Your task to perform on an android device: change text size in settings app Image 0: 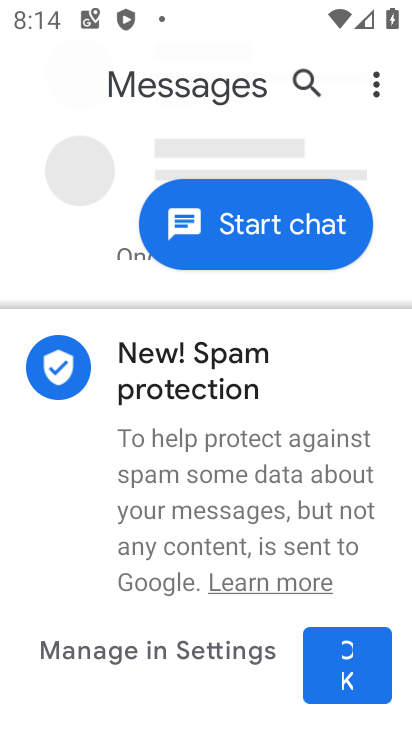
Step 0: press back button
Your task to perform on an android device: change text size in settings app Image 1: 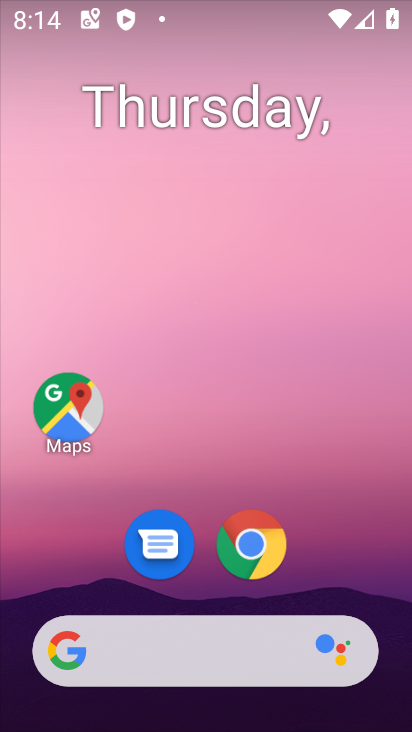
Step 1: drag from (328, 575) to (219, 73)
Your task to perform on an android device: change text size in settings app Image 2: 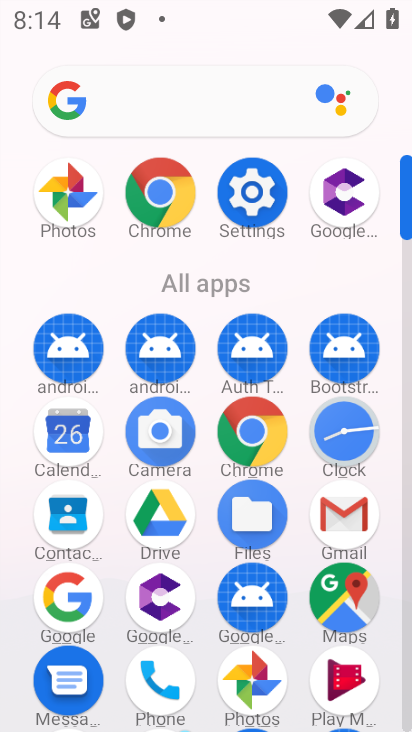
Step 2: click (253, 191)
Your task to perform on an android device: change text size in settings app Image 3: 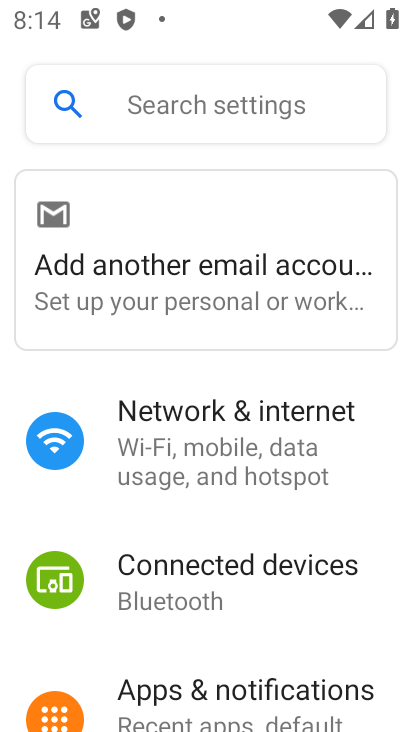
Step 3: drag from (218, 525) to (257, 431)
Your task to perform on an android device: change text size in settings app Image 4: 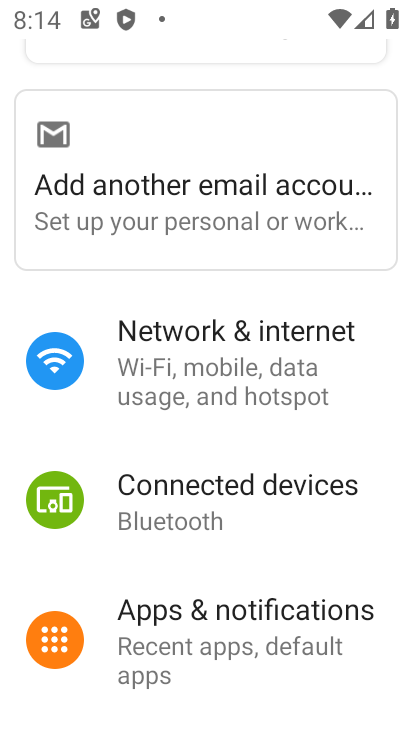
Step 4: drag from (187, 563) to (221, 476)
Your task to perform on an android device: change text size in settings app Image 5: 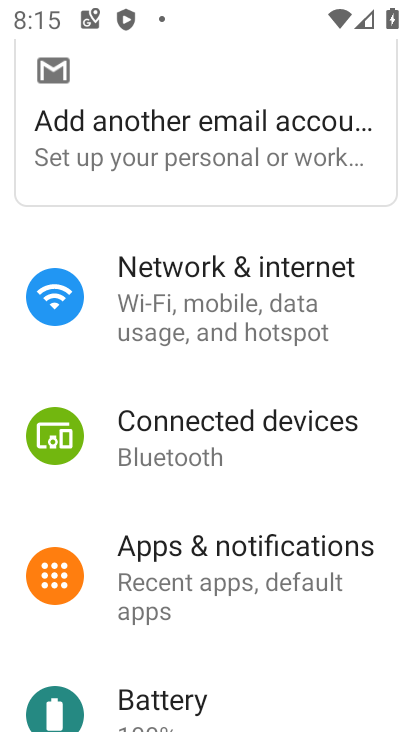
Step 5: drag from (182, 629) to (245, 531)
Your task to perform on an android device: change text size in settings app Image 6: 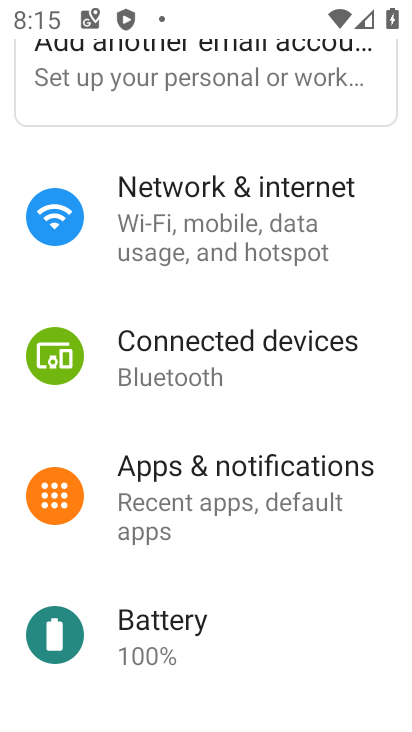
Step 6: drag from (203, 657) to (256, 578)
Your task to perform on an android device: change text size in settings app Image 7: 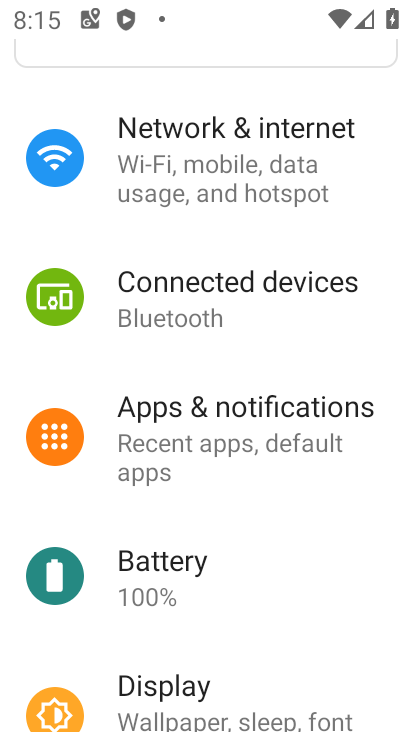
Step 7: drag from (164, 650) to (244, 525)
Your task to perform on an android device: change text size in settings app Image 8: 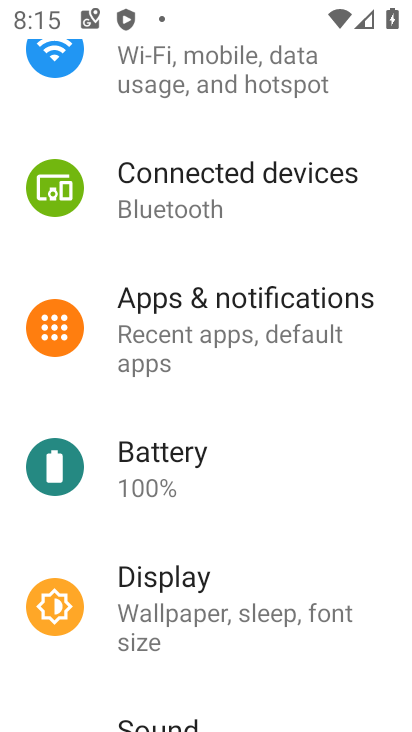
Step 8: drag from (177, 540) to (255, 417)
Your task to perform on an android device: change text size in settings app Image 9: 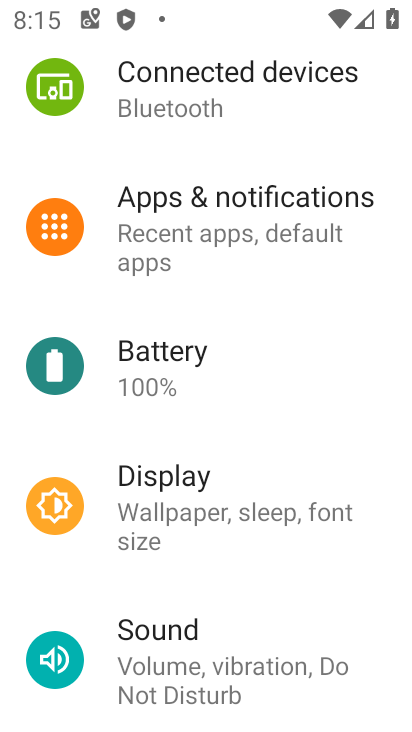
Step 9: drag from (161, 577) to (239, 483)
Your task to perform on an android device: change text size in settings app Image 10: 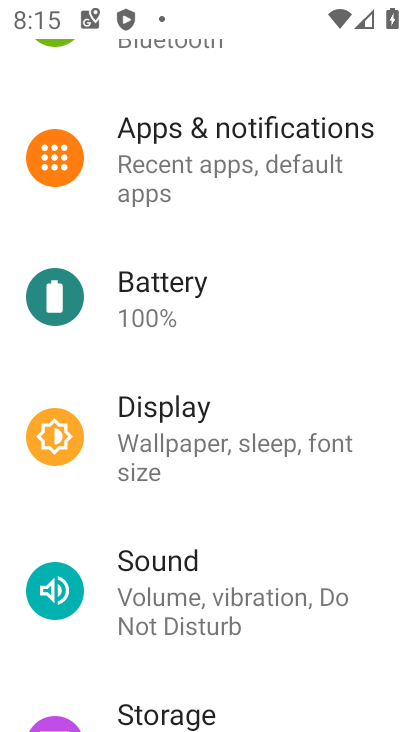
Step 10: drag from (159, 514) to (258, 403)
Your task to perform on an android device: change text size in settings app Image 11: 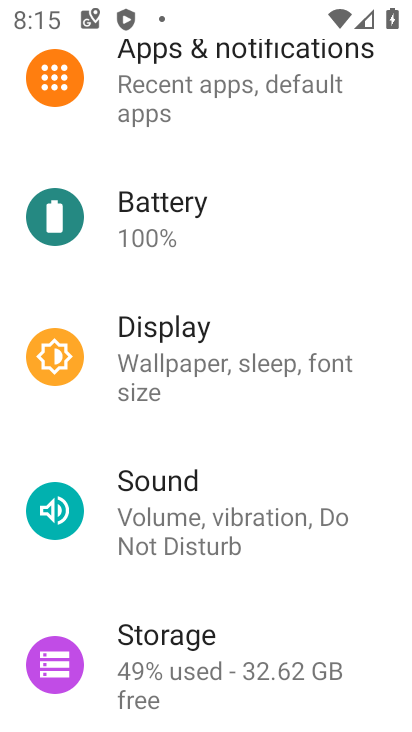
Step 11: drag from (160, 595) to (275, 441)
Your task to perform on an android device: change text size in settings app Image 12: 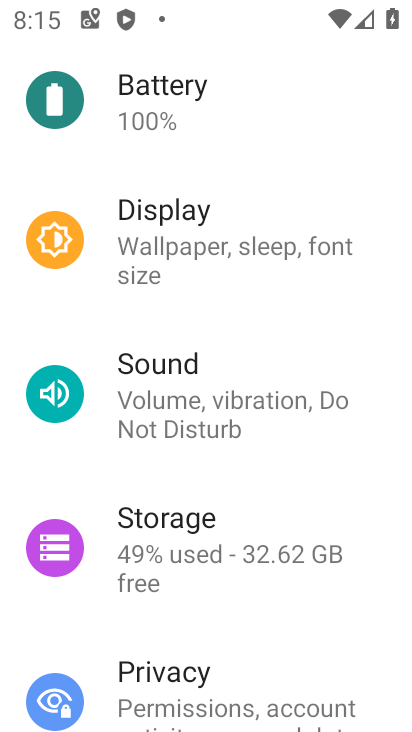
Step 12: drag from (170, 613) to (284, 493)
Your task to perform on an android device: change text size in settings app Image 13: 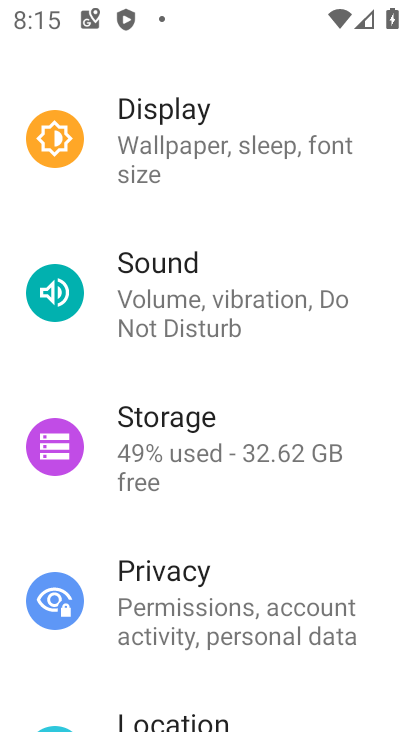
Step 13: drag from (159, 525) to (265, 415)
Your task to perform on an android device: change text size in settings app Image 14: 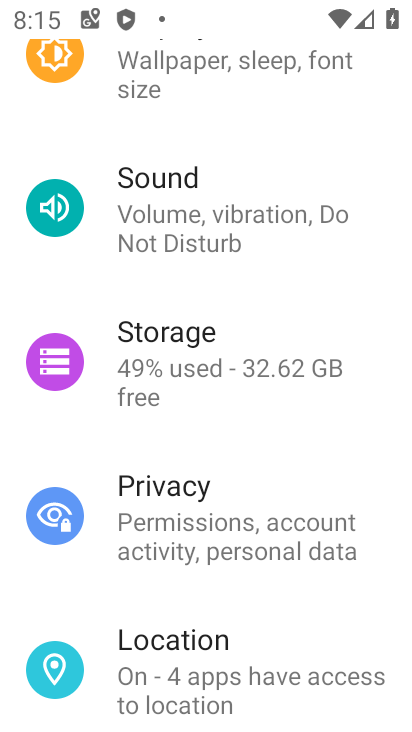
Step 14: drag from (168, 572) to (289, 435)
Your task to perform on an android device: change text size in settings app Image 15: 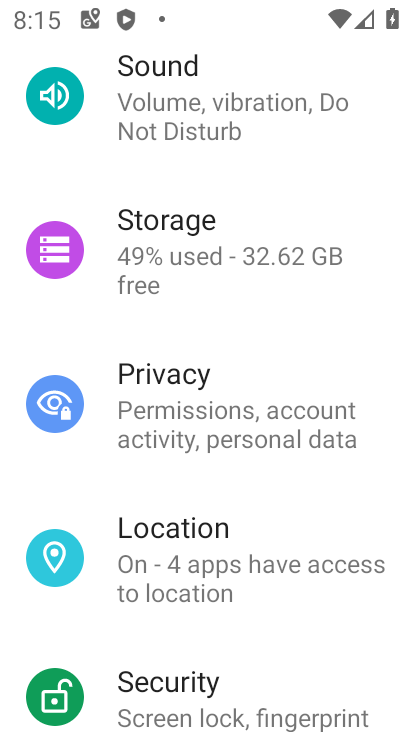
Step 15: drag from (171, 623) to (282, 497)
Your task to perform on an android device: change text size in settings app Image 16: 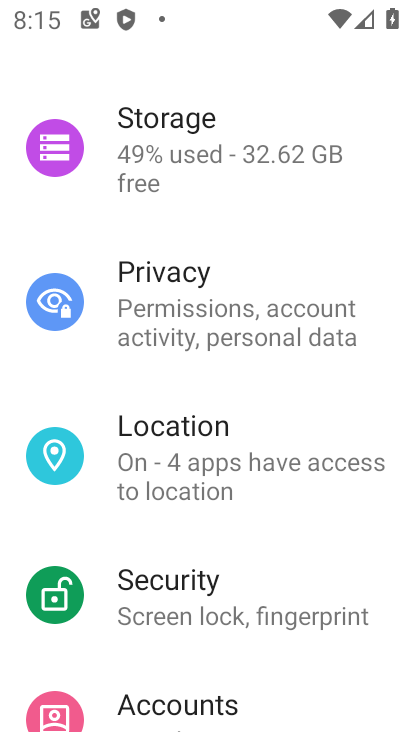
Step 16: drag from (140, 653) to (263, 534)
Your task to perform on an android device: change text size in settings app Image 17: 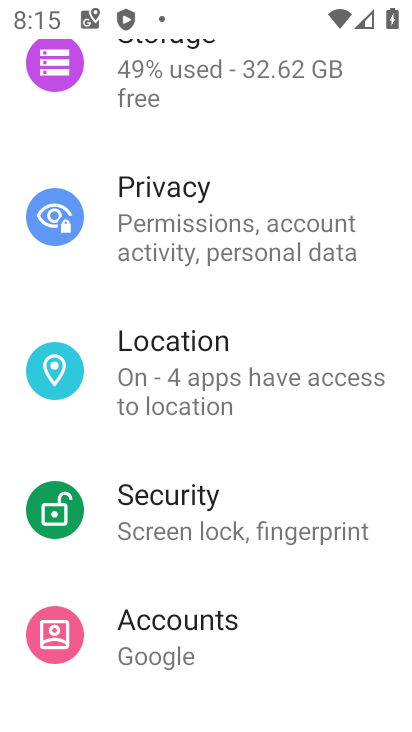
Step 17: drag from (164, 577) to (298, 432)
Your task to perform on an android device: change text size in settings app Image 18: 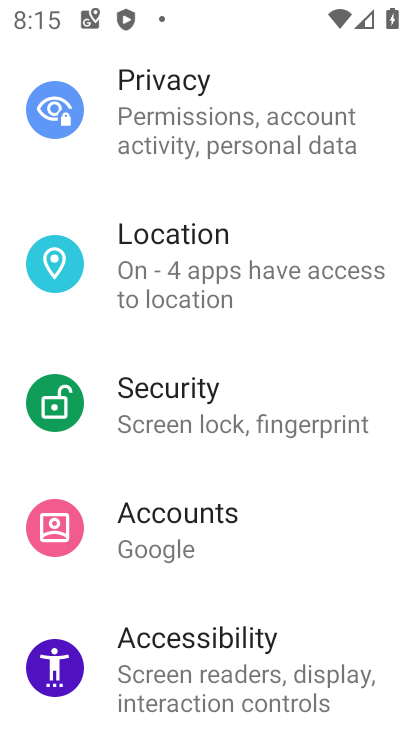
Step 18: drag from (150, 608) to (272, 485)
Your task to perform on an android device: change text size in settings app Image 19: 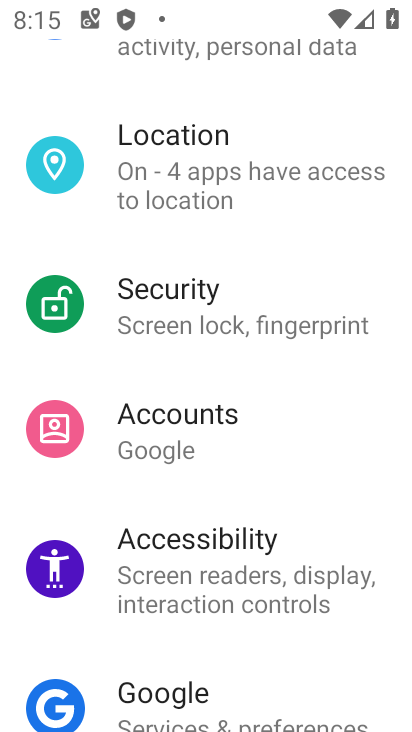
Step 19: click (229, 540)
Your task to perform on an android device: change text size in settings app Image 20: 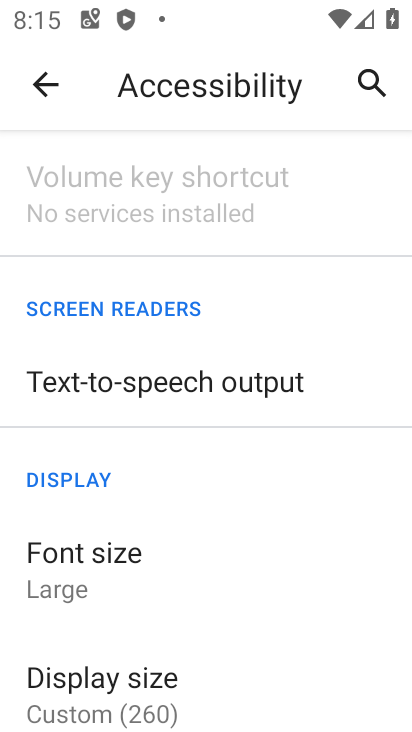
Step 20: click (78, 566)
Your task to perform on an android device: change text size in settings app Image 21: 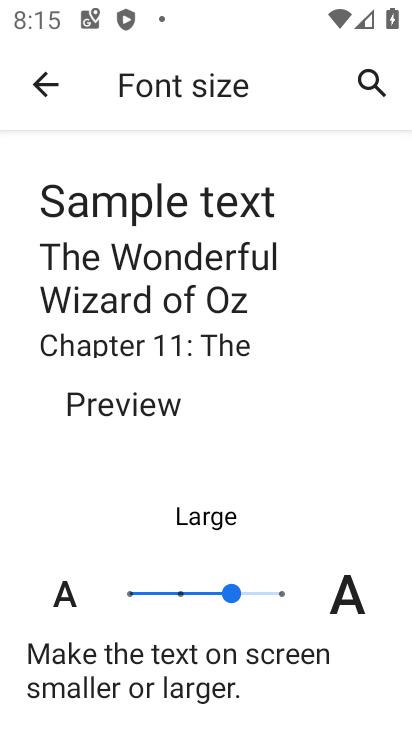
Step 21: click (184, 596)
Your task to perform on an android device: change text size in settings app Image 22: 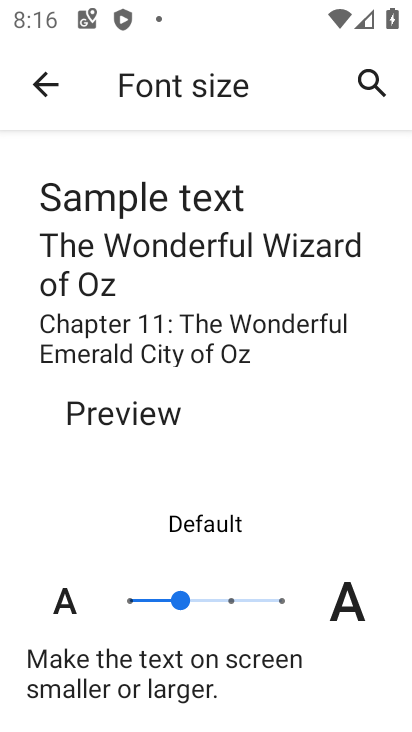
Step 22: task complete